Your task to perform on an android device: Go to settings Image 0: 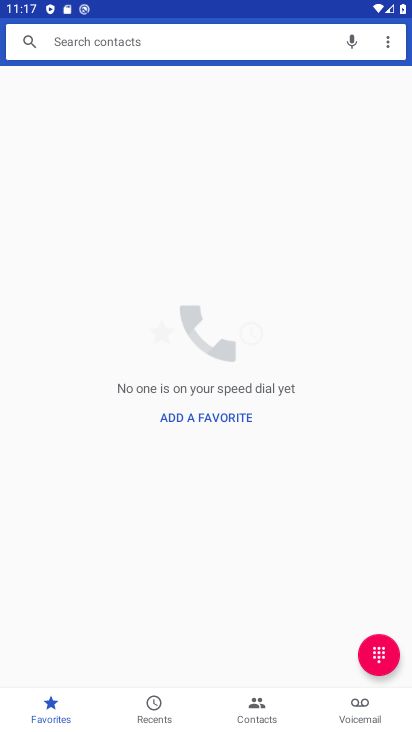
Step 0: press home button
Your task to perform on an android device: Go to settings Image 1: 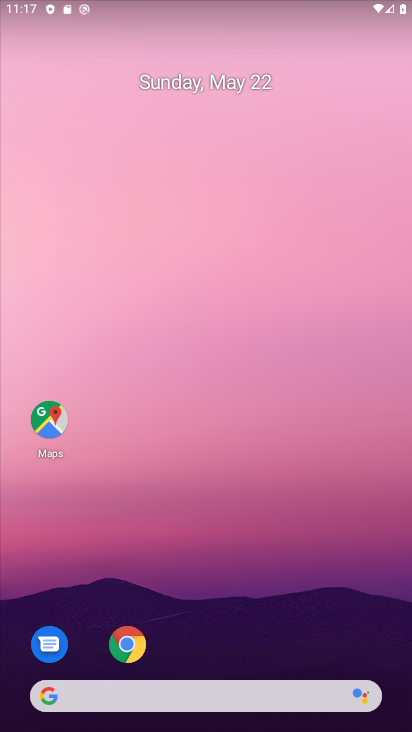
Step 1: drag from (334, 651) to (238, 10)
Your task to perform on an android device: Go to settings Image 2: 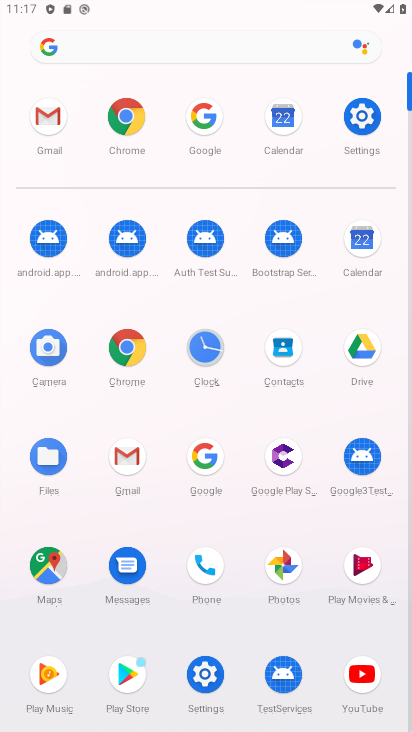
Step 2: click (372, 121)
Your task to perform on an android device: Go to settings Image 3: 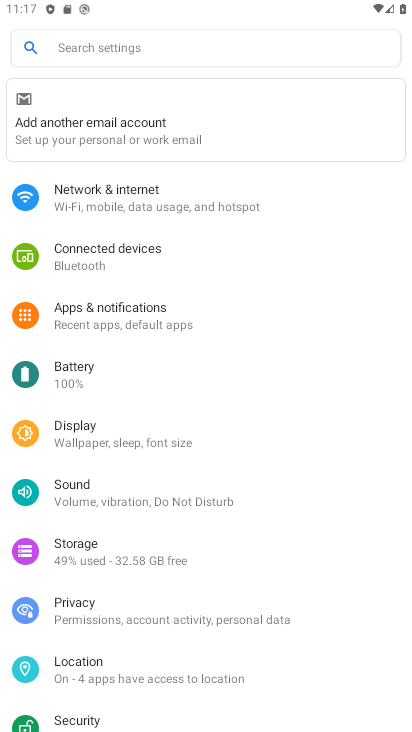
Step 3: task complete